Your task to perform on an android device: Open network settings Image 0: 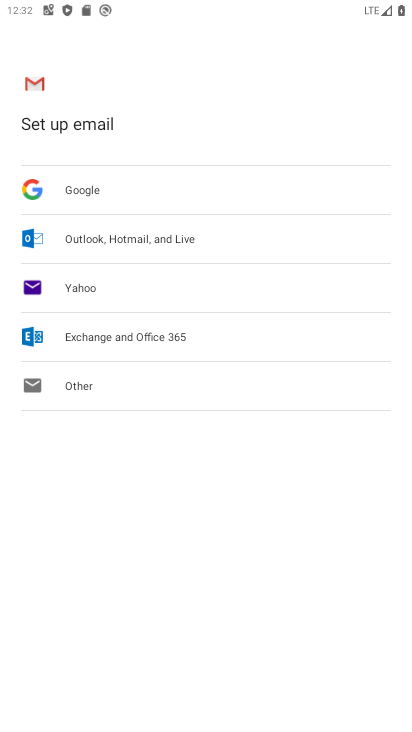
Step 0: press home button
Your task to perform on an android device: Open network settings Image 1: 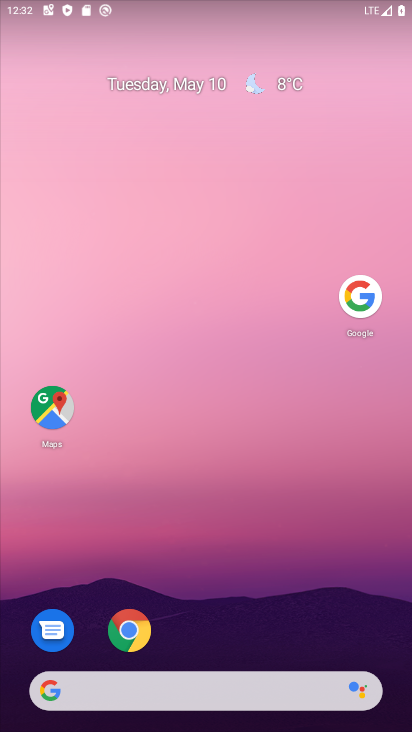
Step 1: drag from (183, 675) to (307, 136)
Your task to perform on an android device: Open network settings Image 2: 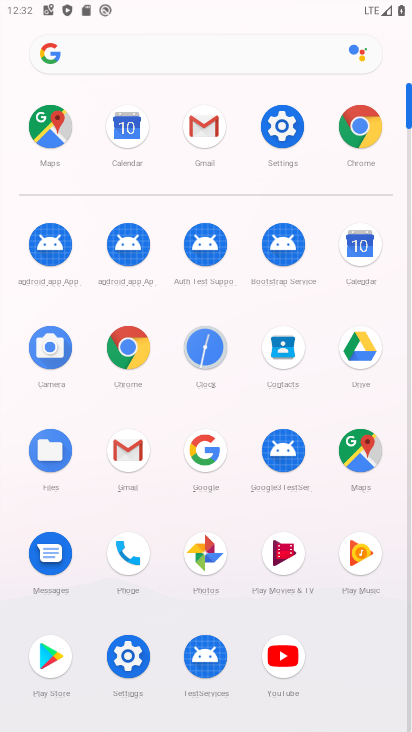
Step 2: click (279, 135)
Your task to perform on an android device: Open network settings Image 3: 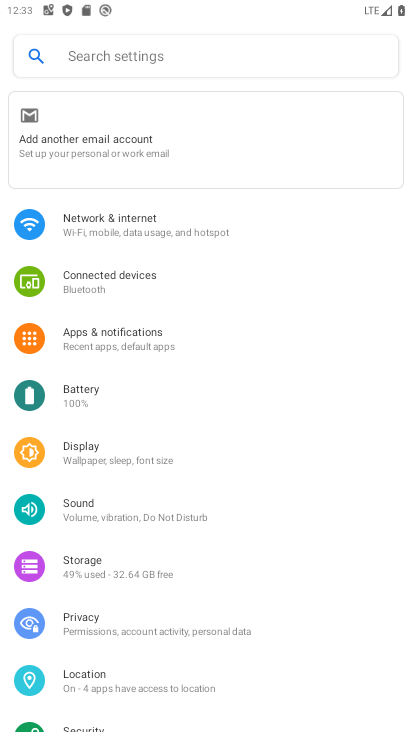
Step 3: click (132, 227)
Your task to perform on an android device: Open network settings Image 4: 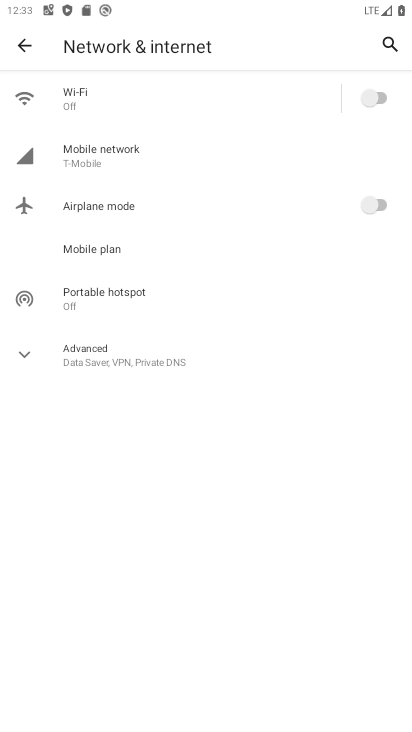
Step 4: task complete